Your task to perform on an android device: toggle pop-ups in chrome Image 0: 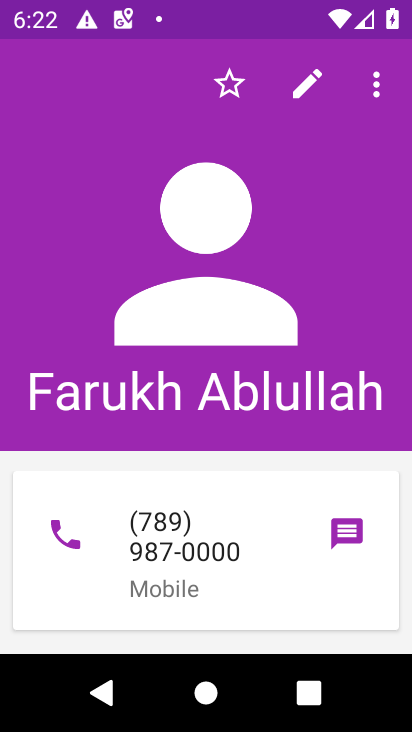
Step 0: press home button
Your task to perform on an android device: toggle pop-ups in chrome Image 1: 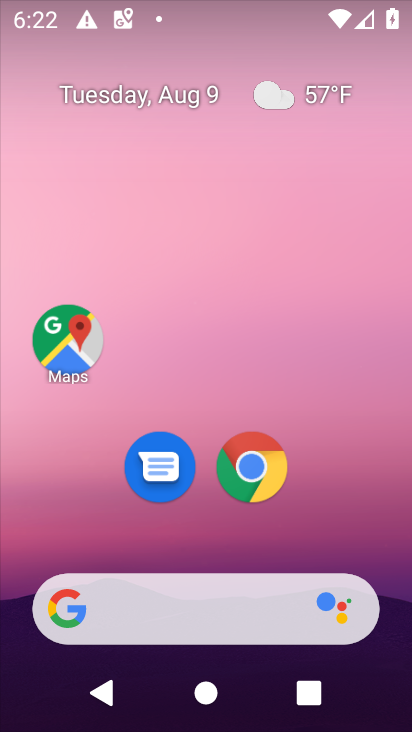
Step 1: click (248, 467)
Your task to perform on an android device: toggle pop-ups in chrome Image 2: 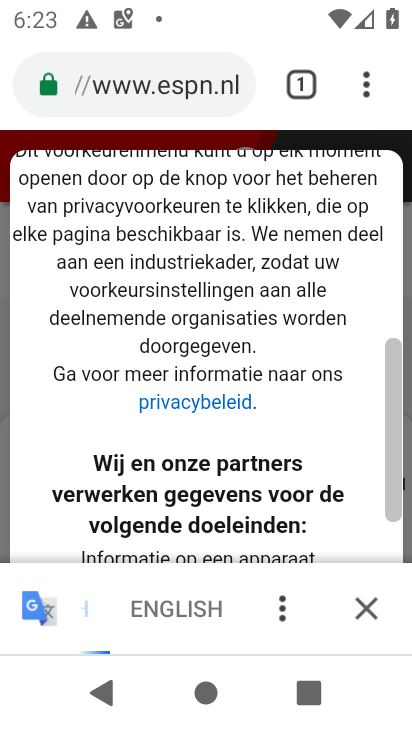
Step 2: click (365, 87)
Your task to perform on an android device: toggle pop-ups in chrome Image 3: 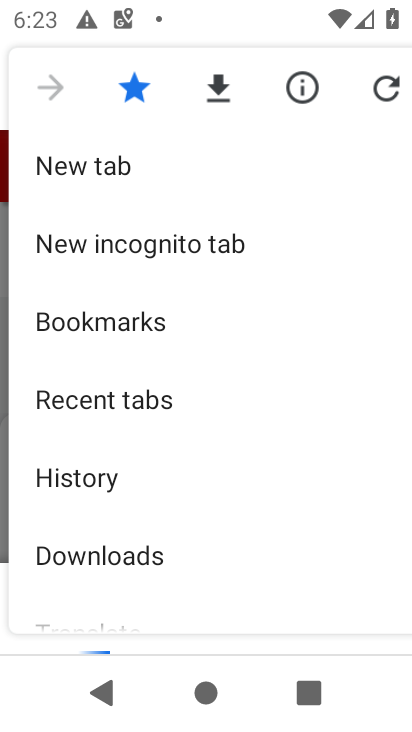
Step 3: click (144, 259)
Your task to perform on an android device: toggle pop-ups in chrome Image 4: 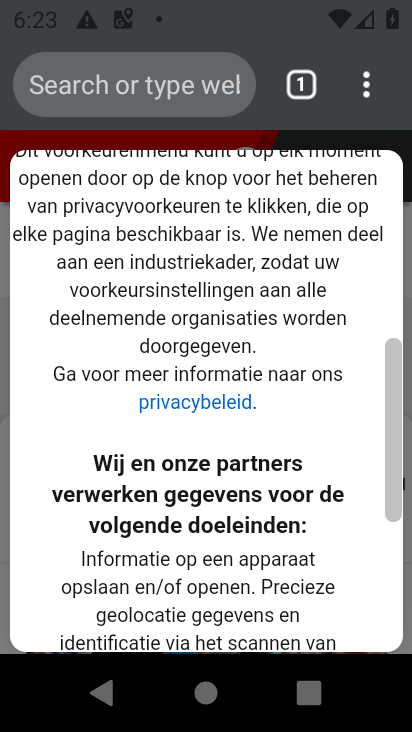
Step 4: drag from (149, 391) to (161, 260)
Your task to perform on an android device: toggle pop-ups in chrome Image 5: 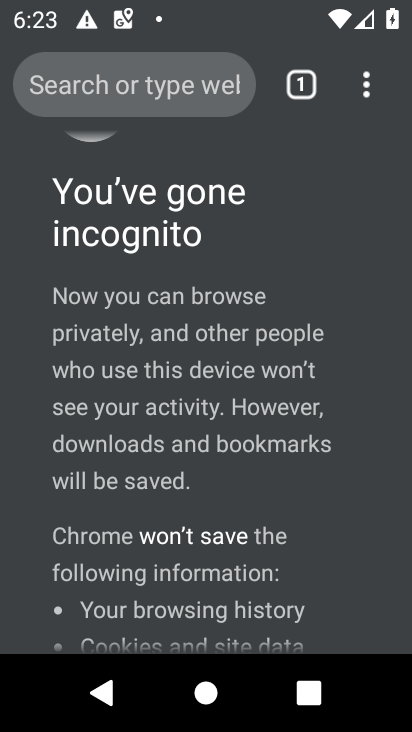
Step 5: click (366, 83)
Your task to perform on an android device: toggle pop-ups in chrome Image 6: 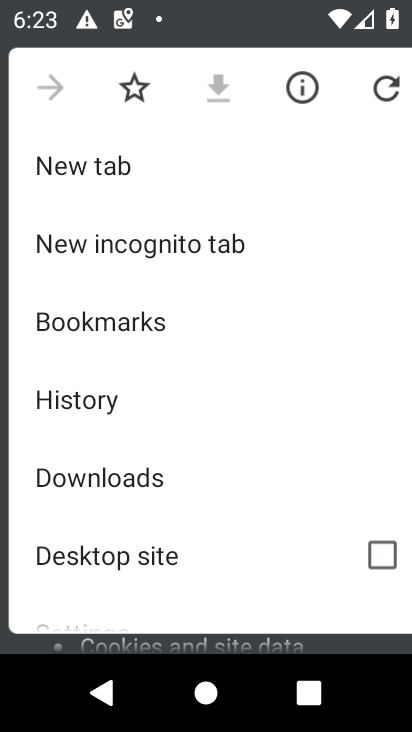
Step 6: drag from (192, 477) to (190, 291)
Your task to perform on an android device: toggle pop-ups in chrome Image 7: 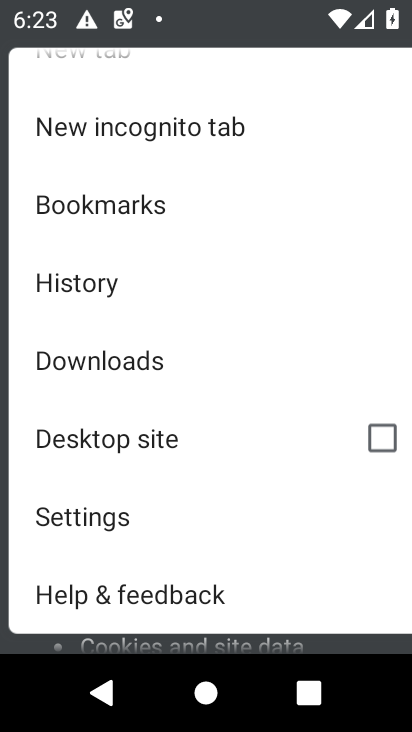
Step 7: click (89, 514)
Your task to perform on an android device: toggle pop-ups in chrome Image 8: 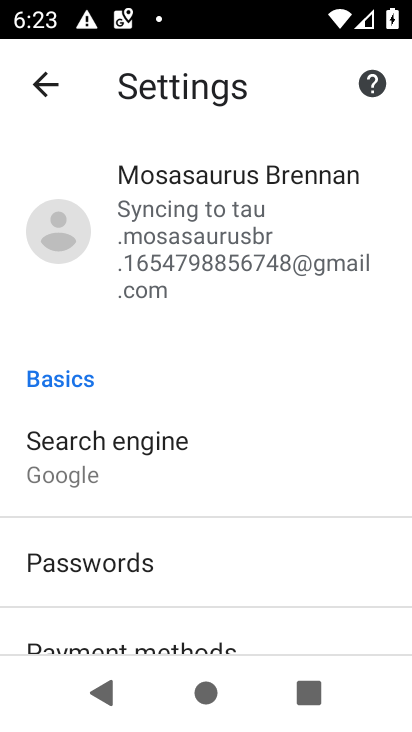
Step 8: drag from (174, 556) to (190, 336)
Your task to perform on an android device: toggle pop-ups in chrome Image 9: 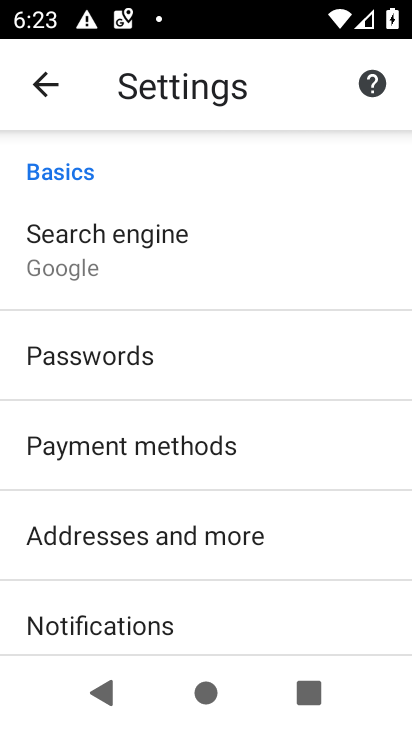
Step 9: drag from (189, 562) to (213, 269)
Your task to perform on an android device: toggle pop-ups in chrome Image 10: 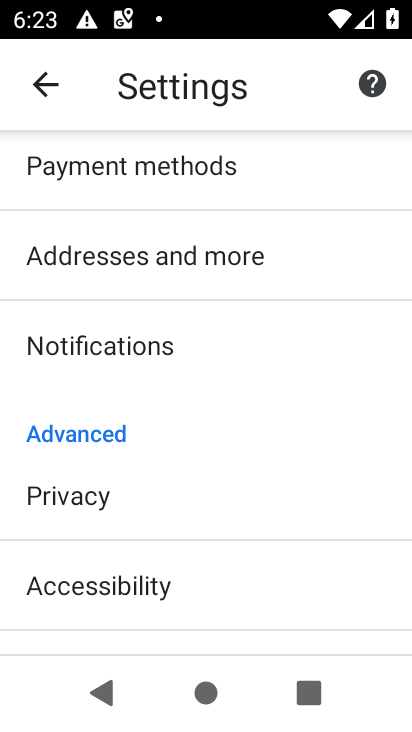
Step 10: drag from (222, 535) to (249, 292)
Your task to perform on an android device: toggle pop-ups in chrome Image 11: 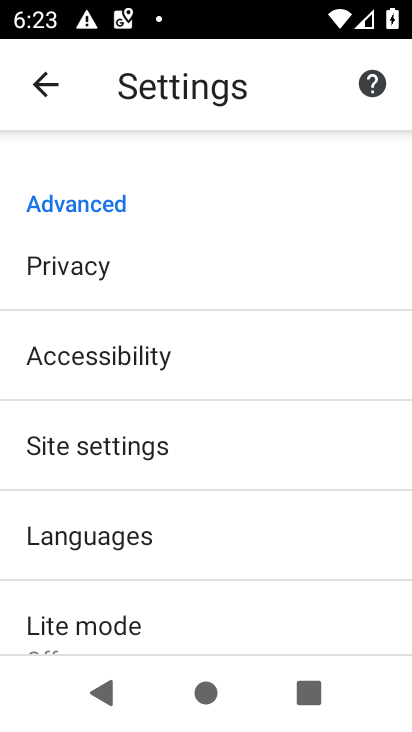
Step 11: click (125, 450)
Your task to perform on an android device: toggle pop-ups in chrome Image 12: 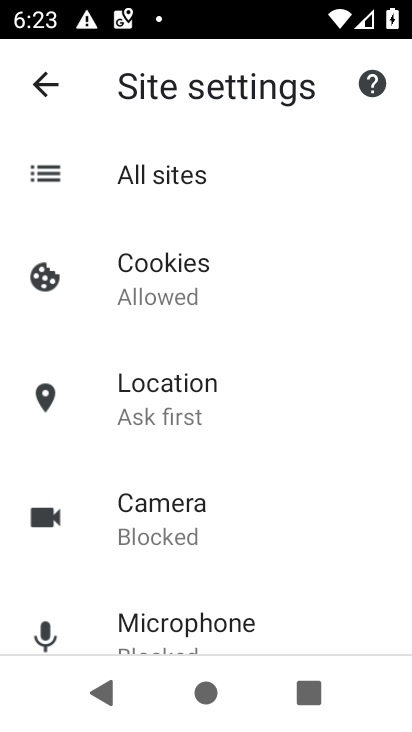
Step 12: drag from (235, 589) to (227, 205)
Your task to perform on an android device: toggle pop-ups in chrome Image 13: 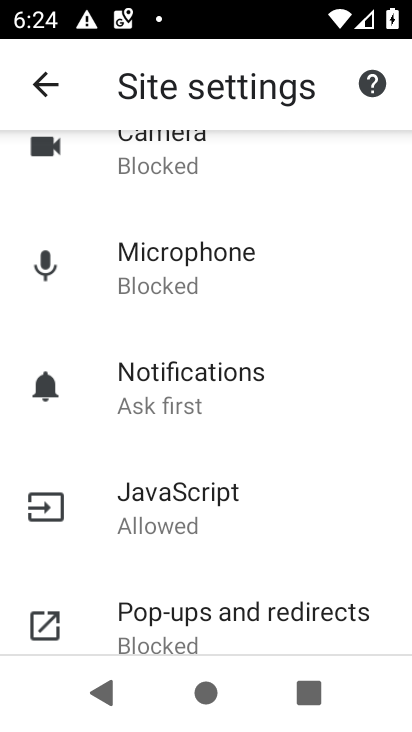
Step 13: click (226, 622)
Your task to perform on an android device: toggle pop-ups in chrome Image 14: 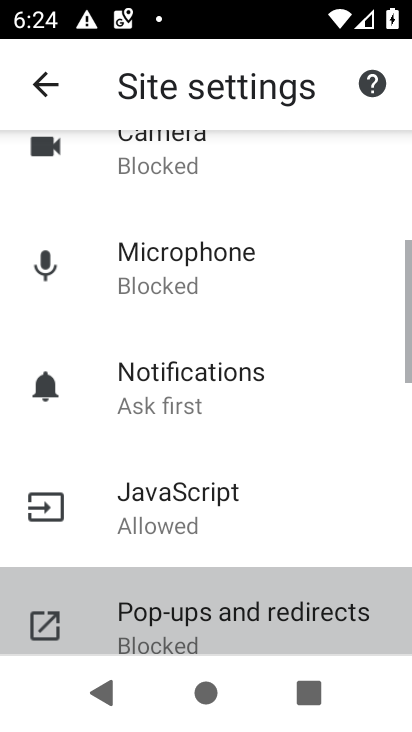
Step 14: click (197, 622)
Your task to perform on an android device: toggle pop-ups in chrome Image 15: 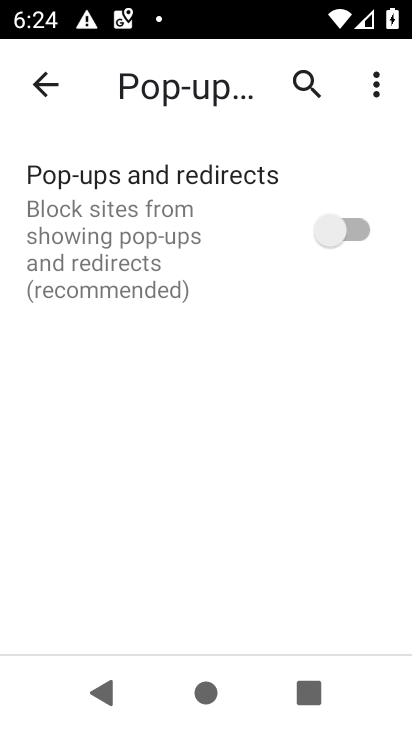
Step 15: click (355, 231)
Your task to perform on an android device: toggle pop-ups in chrome Image 16: 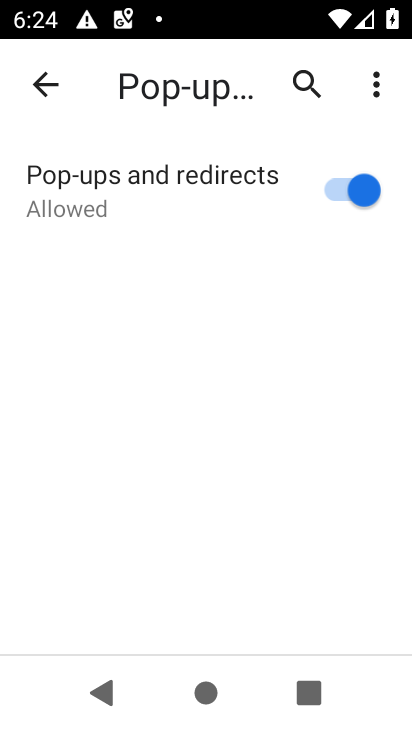
Step 16: task complete